Your task to perform on an android device: turn off javascript in the chrome app Image 0: 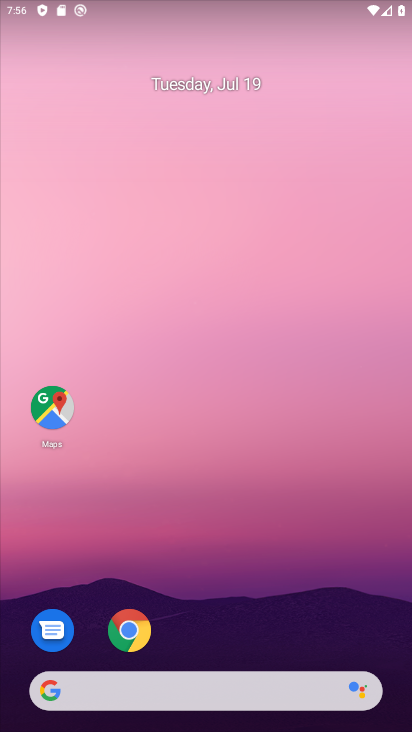
Step 0: drag from (213, 677) to (229, 176)
Your task to perform on an android device: turn off javascript in the chrome app Image 1: 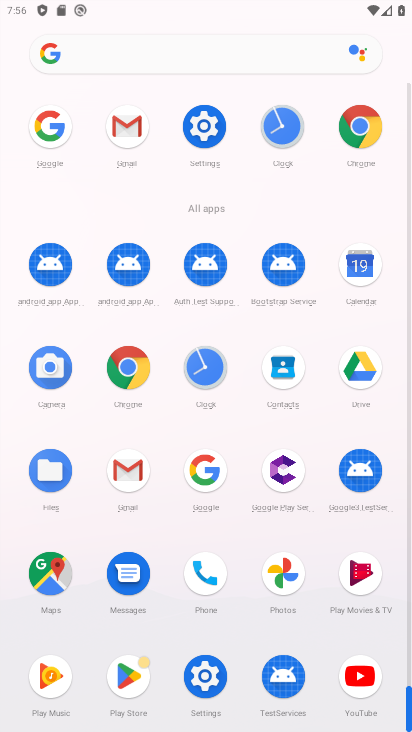
Step 1: click (366, 145)
Your task to perform on an android device: turn off javascript in the chrome app Image 2: 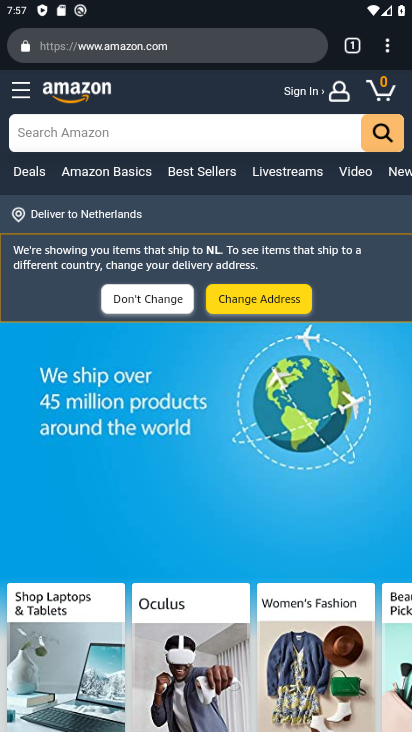
Step 2: click (392, 48)
Your task to perform on an android device: turn off javascript in the chrome app Image 3: 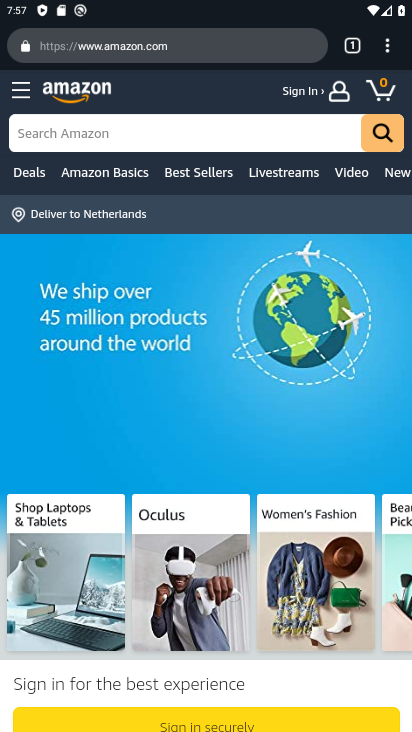
Step 3: click (392, 53)
Your task to perform on an android device: turn off javascript in the chrome app Image 4: 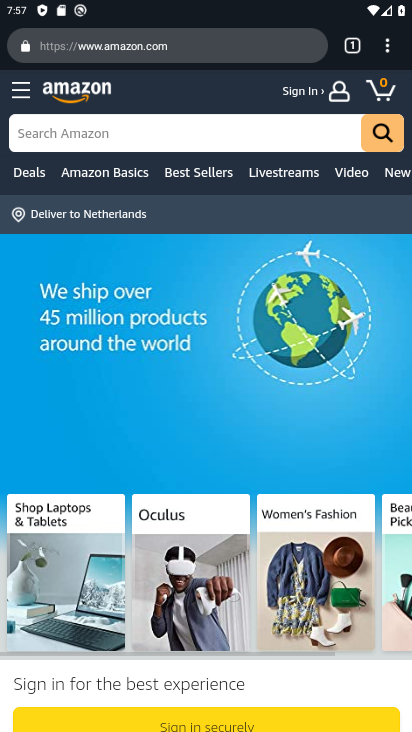
Step 4: click (387, 51)
Your task to perform on an android device: turn off javascript in the chrome app Image 5: 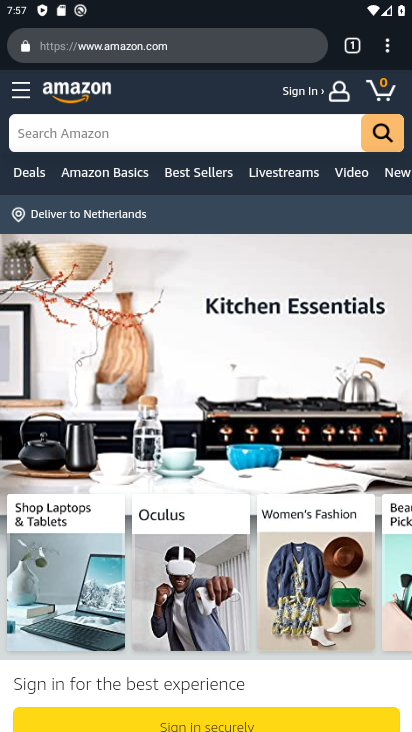
Step 5: click (397, 48)
Your task to perform on an android device: turn off javascript in the chrome app Image 6: 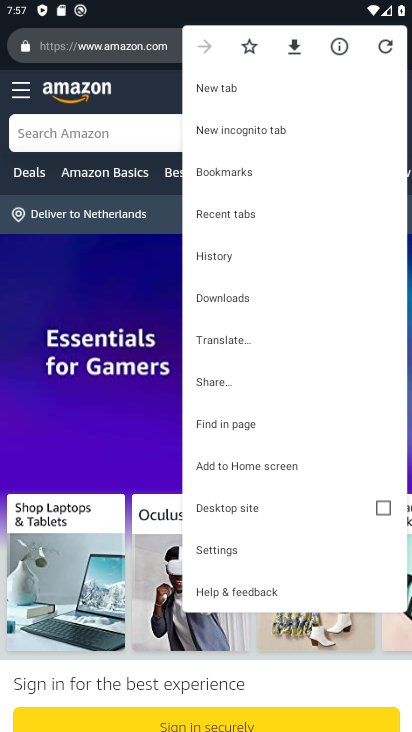
Step 6: click (238, 548)
Your task to perform on an android device: turn off javascript in the chrome app Image 7: 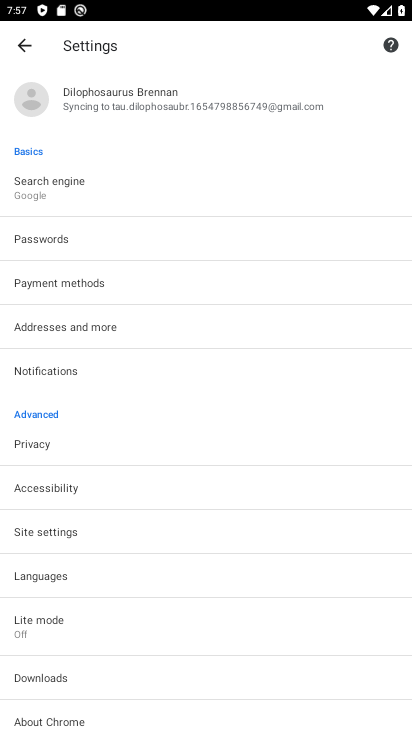
Step 7: click (61, 536)
Your task to perform on an android device: turn off javascript in the chrome app Image 8: 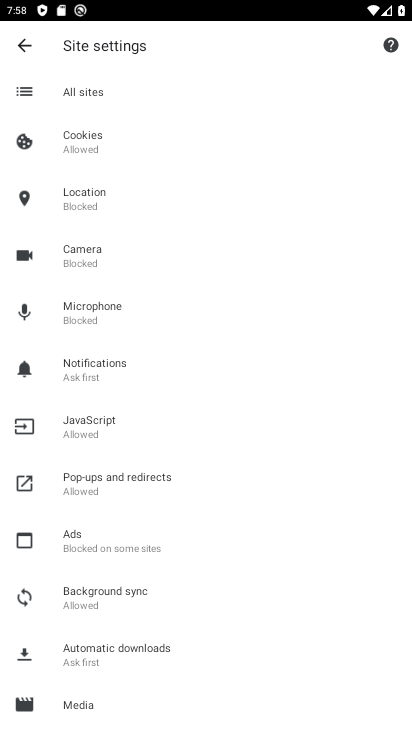
Step 8: drag from (114, 620) to (141, 432)
Your task to perform on an android device: turn off javascript in the chrome app Image 9: 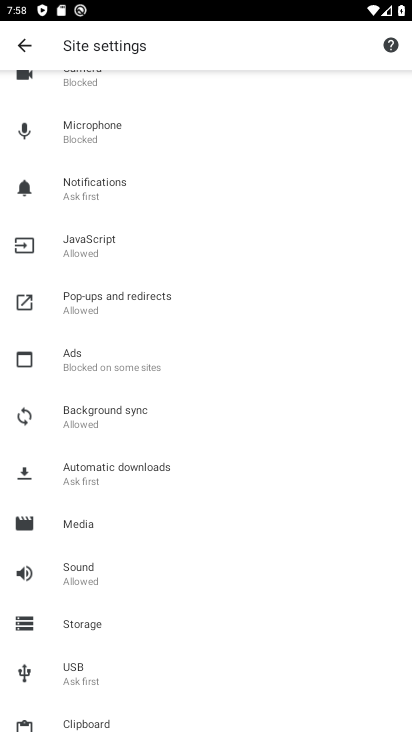
Step 9: click (106, 244)
Your task to perform on an android device: turn off javascript in the chrome app Image 10: 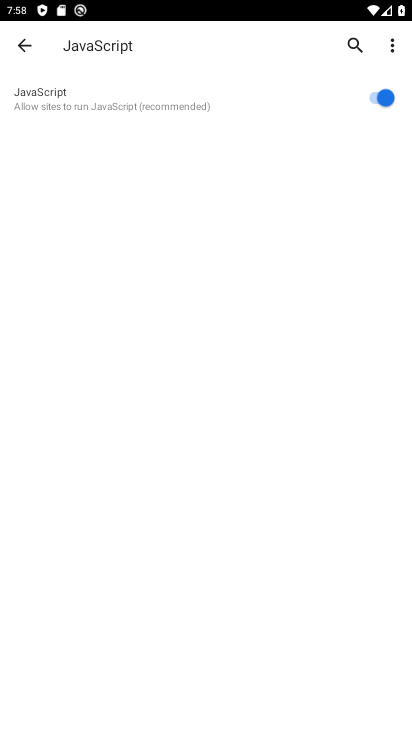
Step 10: click (370, 95)
Your task to perform on an android device: turn off javascript in the chrome app Image 11: 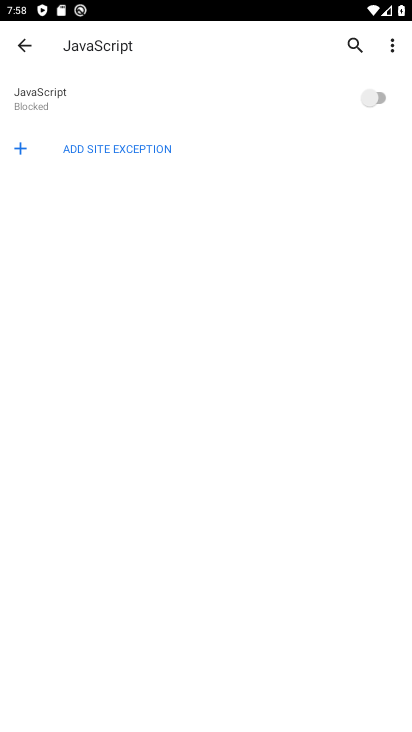
Step 11: task complete